Your task to perform on an android device: all mails in gmail Image 0: 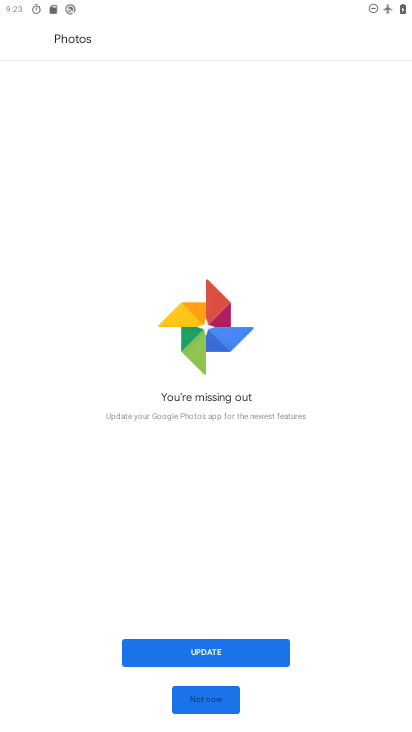
Step 0: press home button
Your task to perform on an android device: all mails in gmail Image 1: 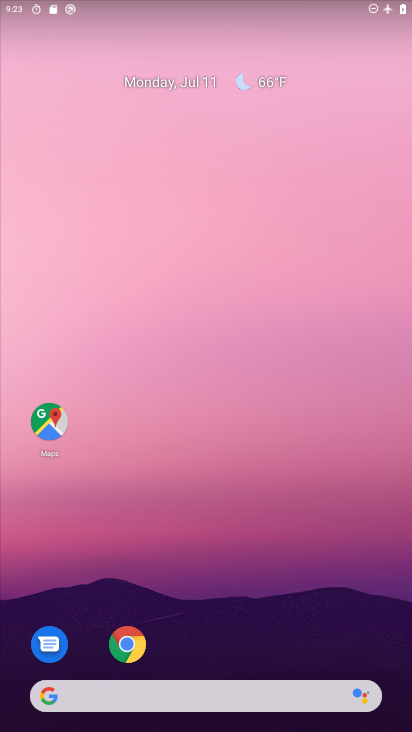
Step 1: drag from (219, 460) to (182, 64)
Your task to perform on an android device: all mails in gmail Image 2: 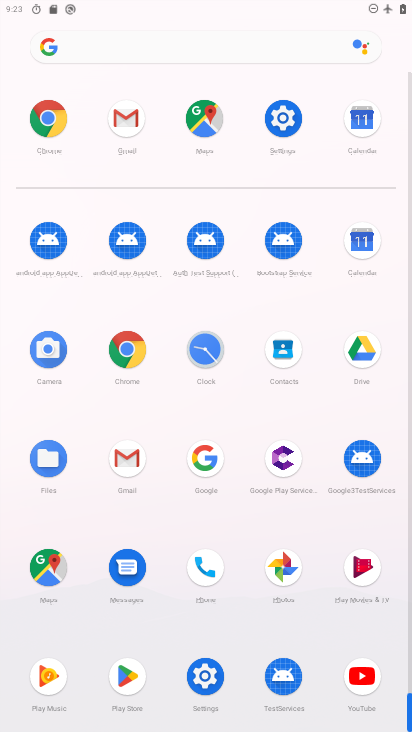
Step 2: click (130, 119)
Your task to perform on an android device: all mails in gmail Image 3: 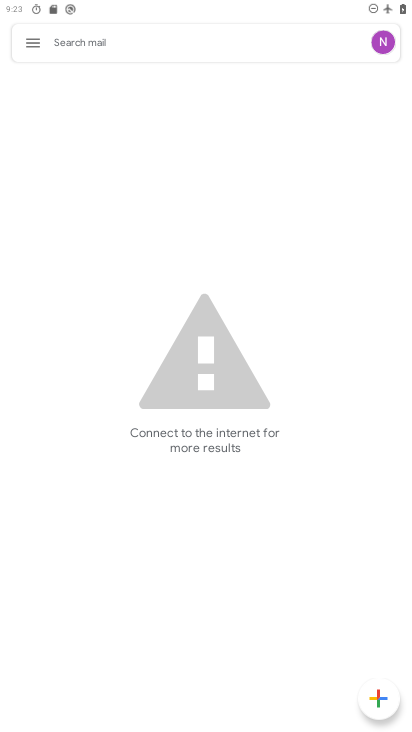
Step 3: click (36, 41)
Your task to perform on an android device: all mails in gmail Image 4: 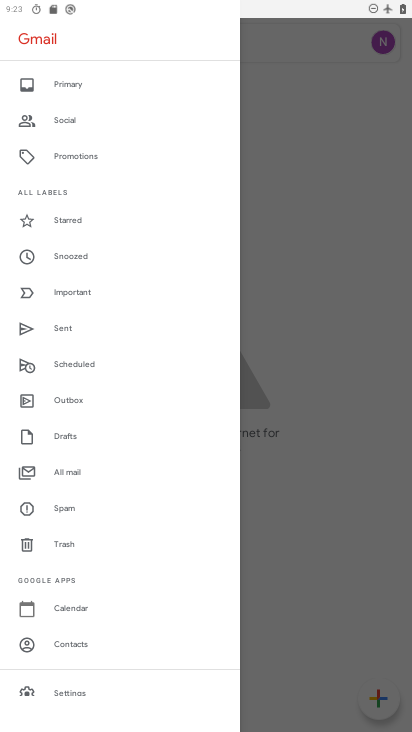
Step 4: click (62, 475)
Your task to perform on an android device: all mails in gmail Image 5: 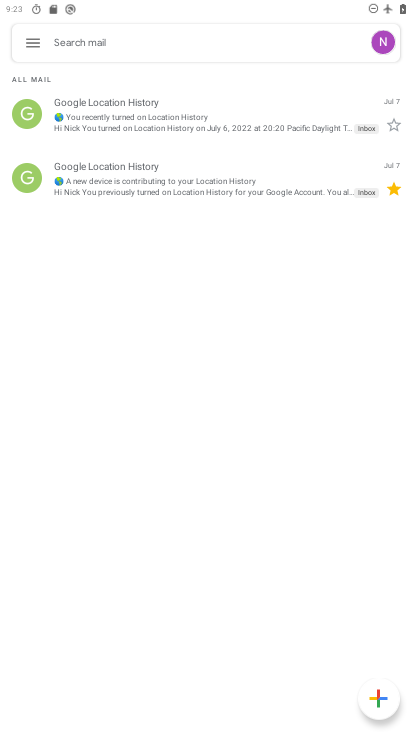
Step 5: task complete